Your task to perform on an android device: Open Yahoo.com Image 0: 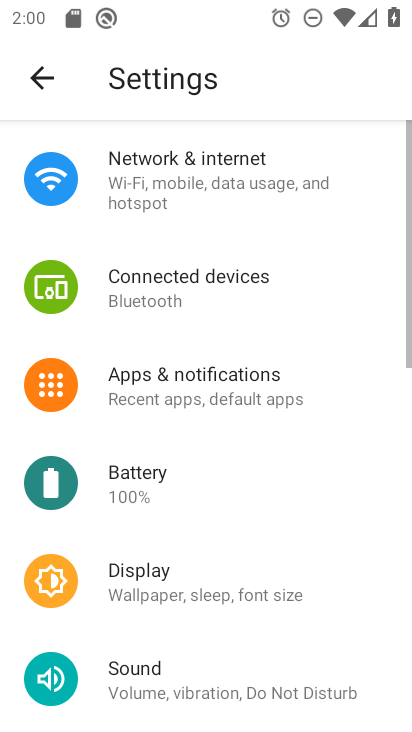
Step 0: press home button
Your task to perform on an android device: Open Yahoo.com Image 1: 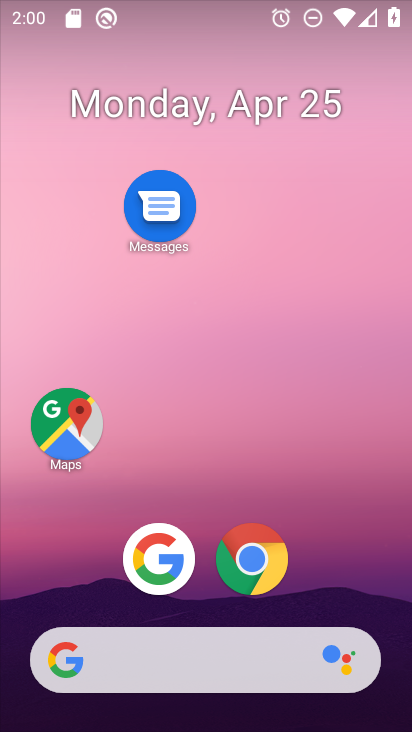
Step 1: click (253, 562)
Your task to perform on an android device: Open Yahoo.com Image 2: 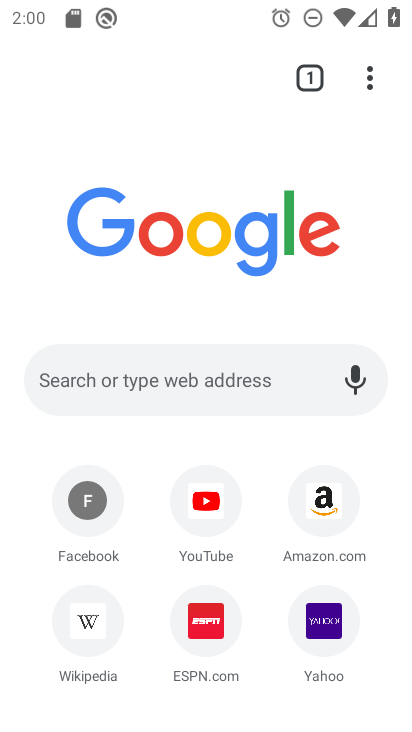
Step 2: click (330, 619)
Your task to perform on an android device: Open Yahoo.com Image 3: 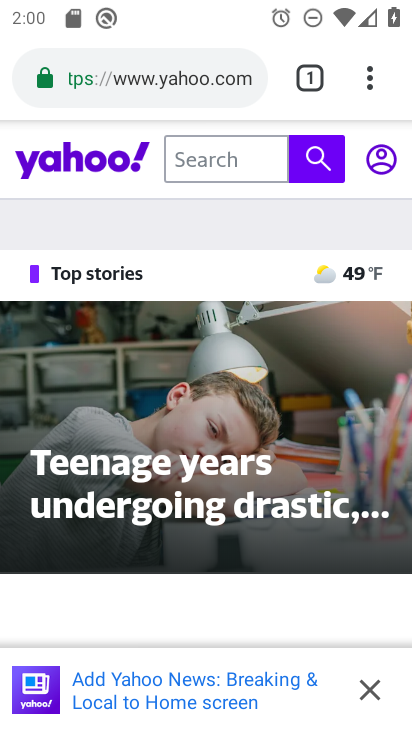
Step 3: task complete